Your task to perform on an android device: Open Reddit.com Image 0: 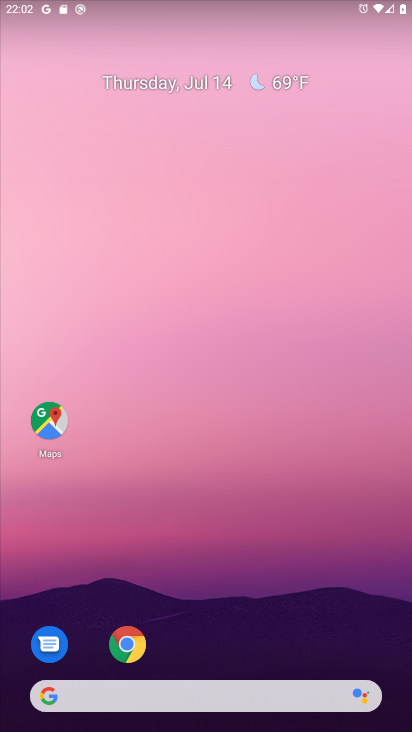
Step 0: click (167, 704)
Your task to perform on an android device: Open Reddit.com Image 1: 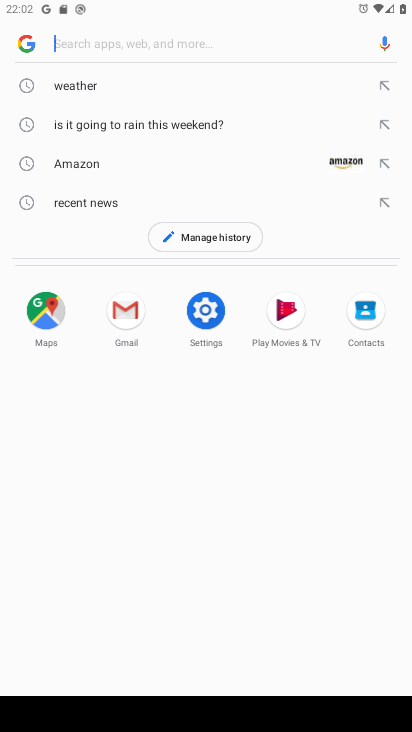
Step 1: type "reddit"
Your task to perform on an android device: Open Reddit.com Image 2: 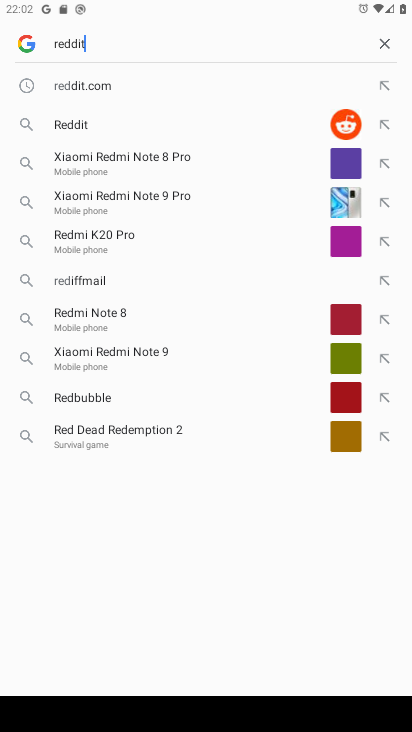
Step 2: type ""
Your task to perform on an android device: Open Reddit.com Image 3: 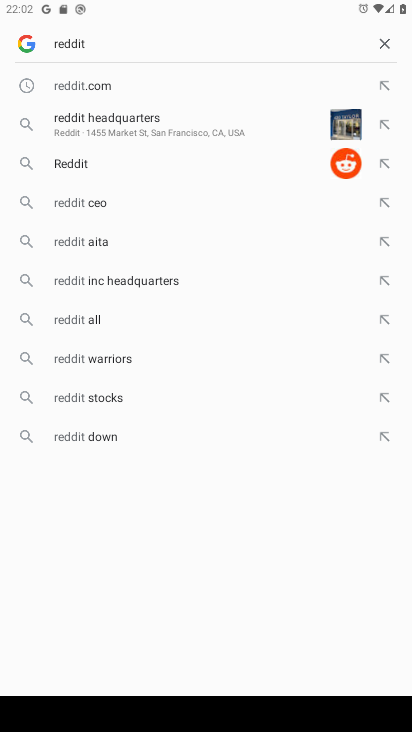
Step 3: click (324, 165)
Your task to perform on an android device: Open Reddit.com Image 4: 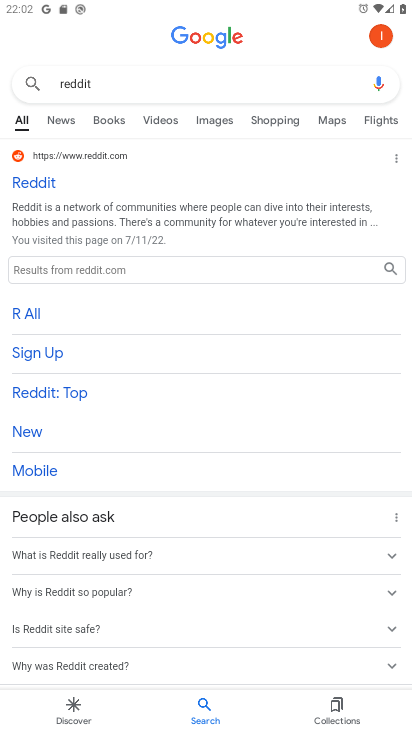
Step 4: click (41, 181)
Your task to perform on an android device: Open Reddit.com Image 5: 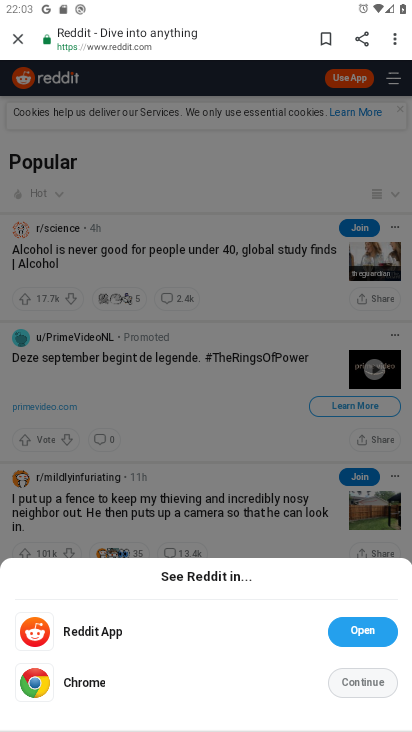
Step 5: task complete